Your task to perform on an android device: install app "Airtel Thanks" Image 0: 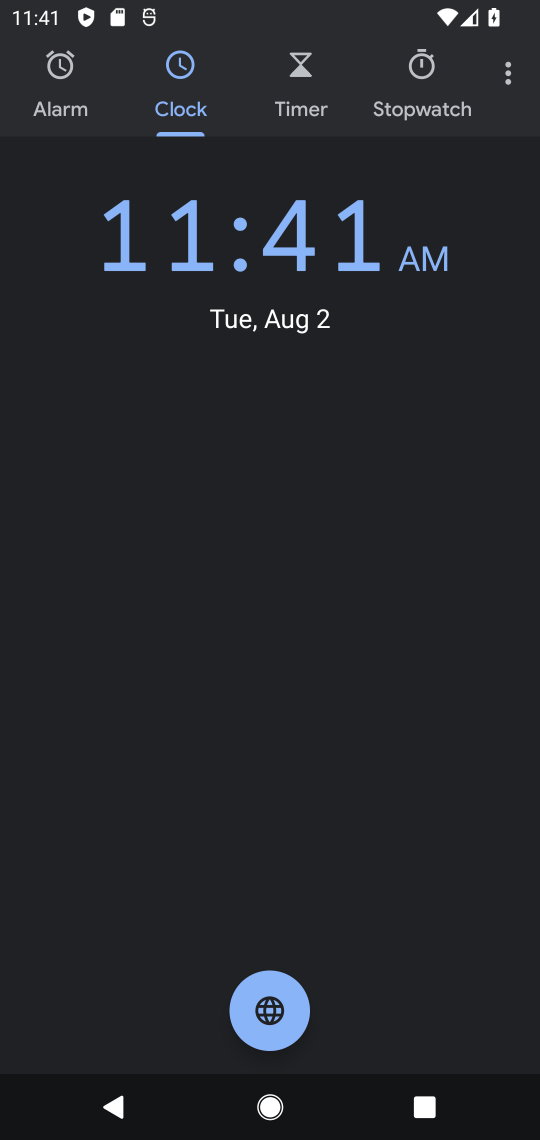
Step 0: press home button
Your task to perform on an android device: install app "Airtel Thanks" Image 1: 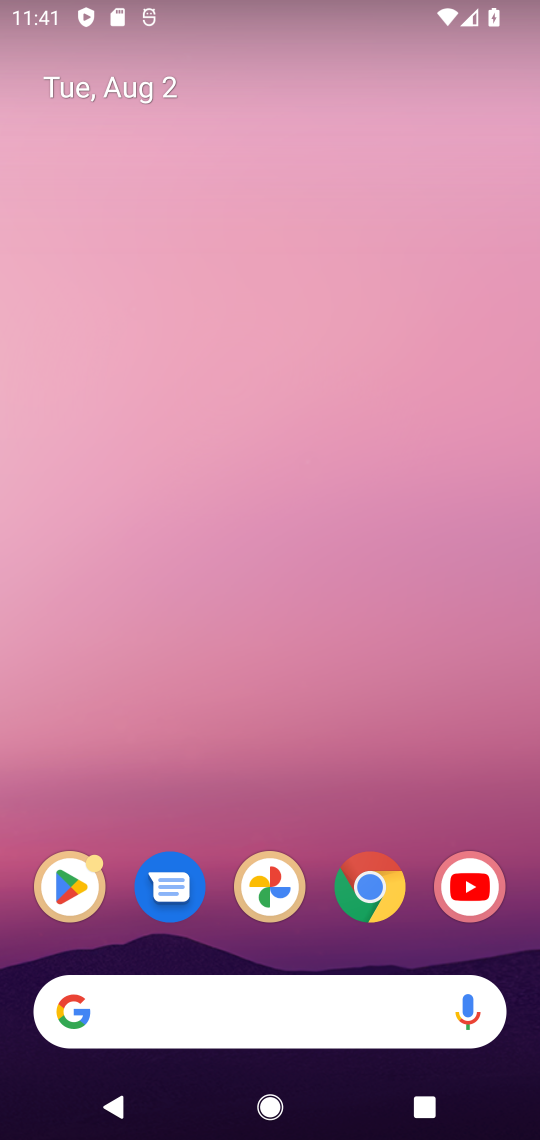
Step 1: click (85, 898)
Your task to perform on an android device: install app "Airtel Thanks" Image 2: 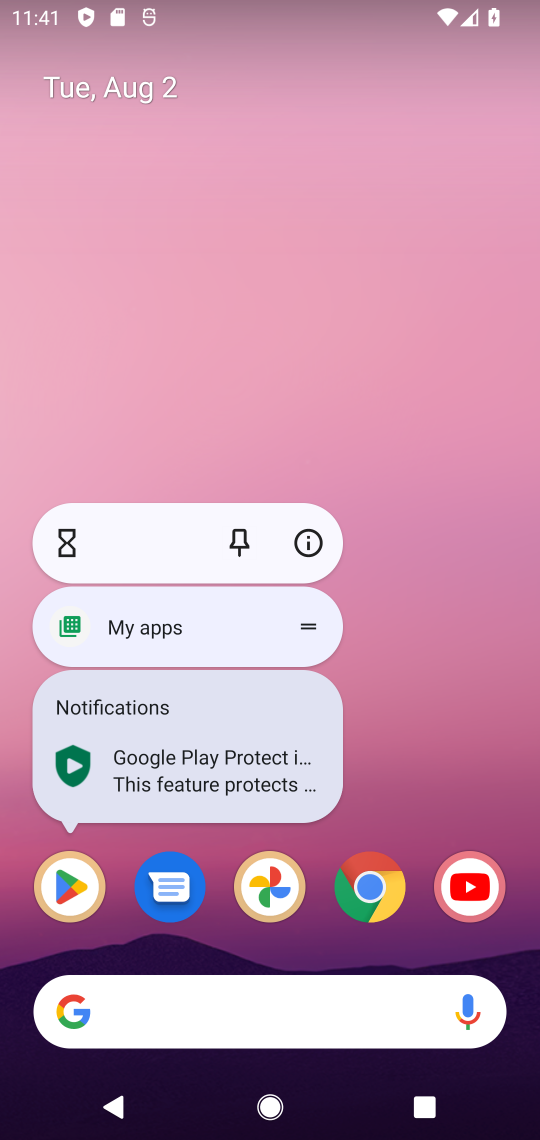
Step 2: click (85, 898)
Your task to perform on an android device: install app "Airtel Thanks" Image 3: 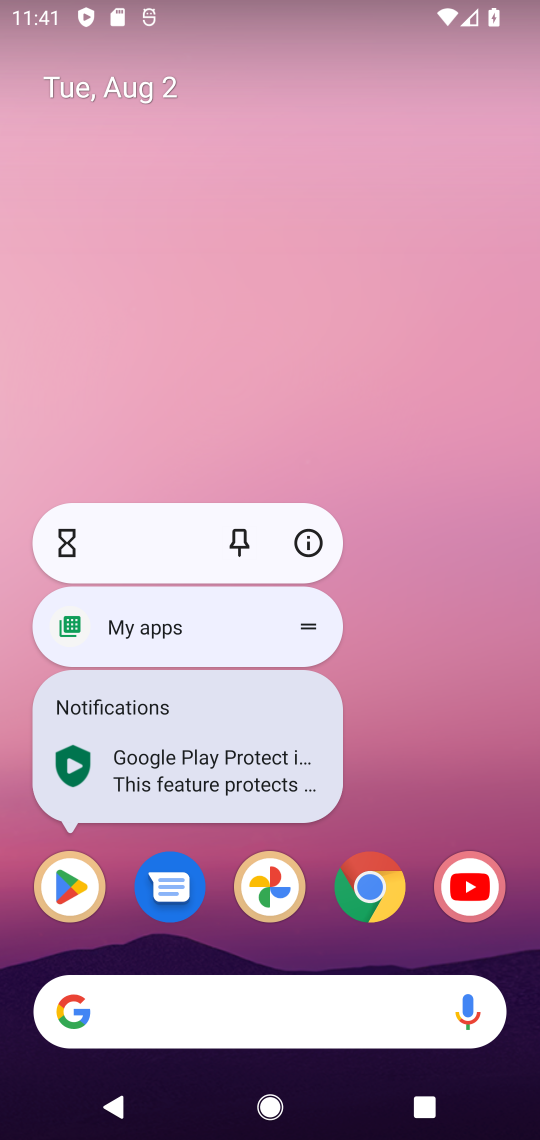
Step 3: click (85, 898)
Your task to perform on an android device: install app "Airtel Thanks" Image 4: 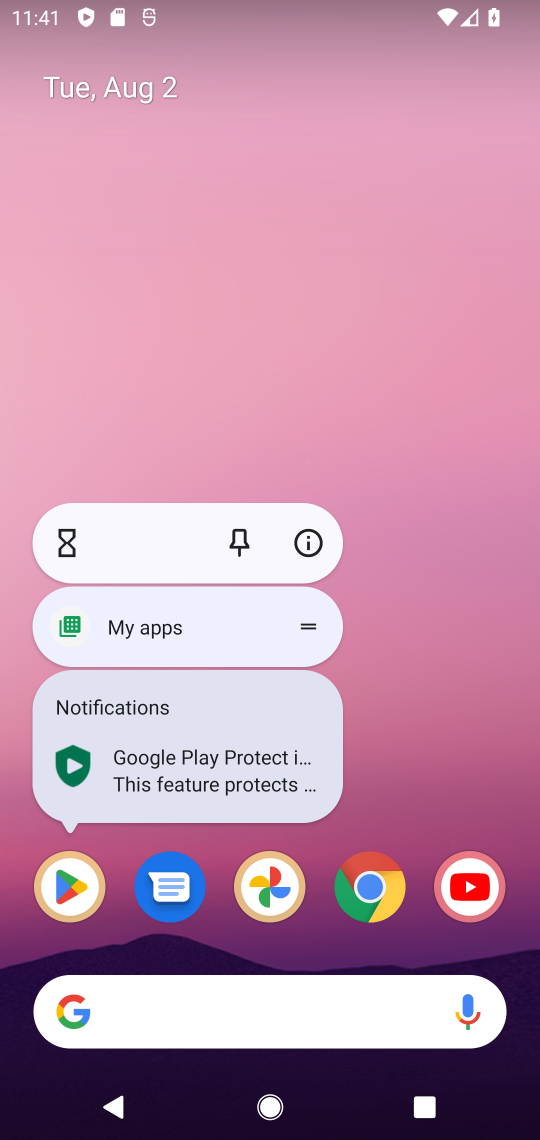
Step 4: click (85, 898)
Your task to perform on an android device: install app "Airtel Thanks" Image 5: 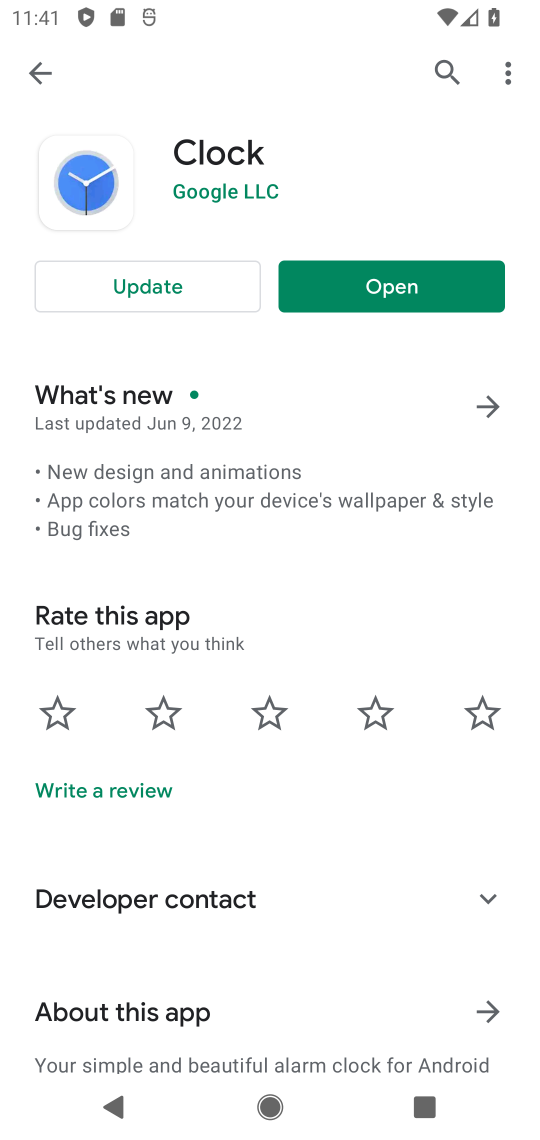
Step 5: click (85, 898)
Your task to perform on an android device: install app "Airtel Thanks" Image 6: 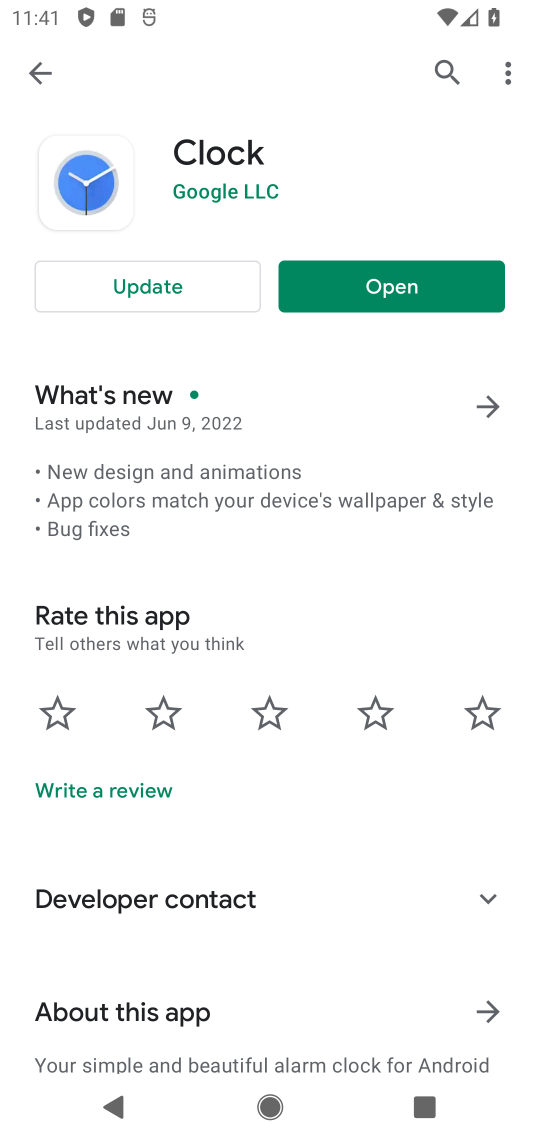
Step 6: click (85, 898)
Your task to perform on an android device: install app "Airtel Thanks" Image 7: 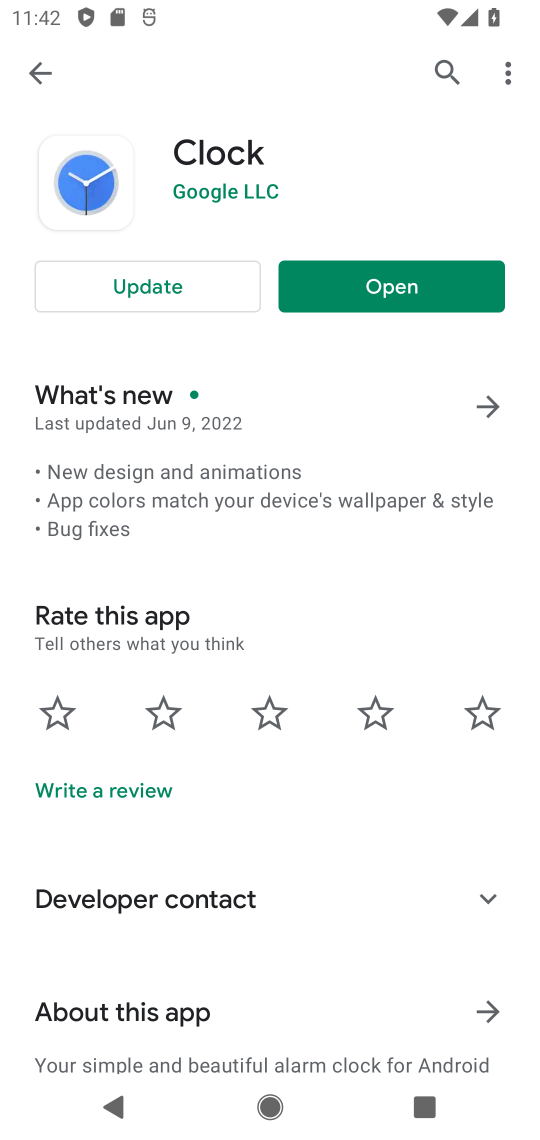
Step 7: press home button
Your task to perform on an android device: install app "Airtel Thanks" Image 8: 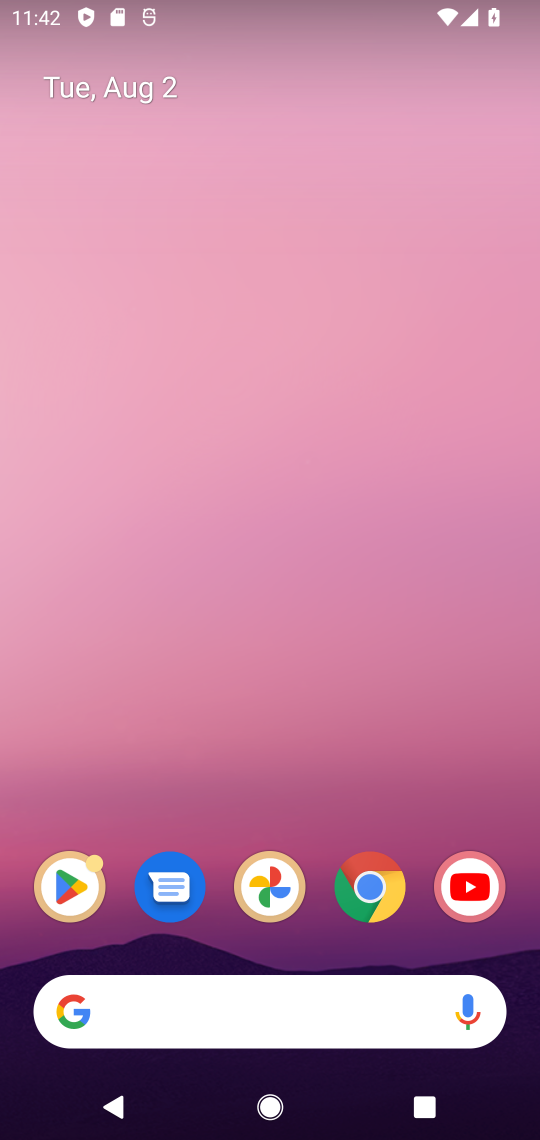
Step 8: click (38, 904)
Your task to perform on an android device: install app "Airtel Thanks" Image 9: 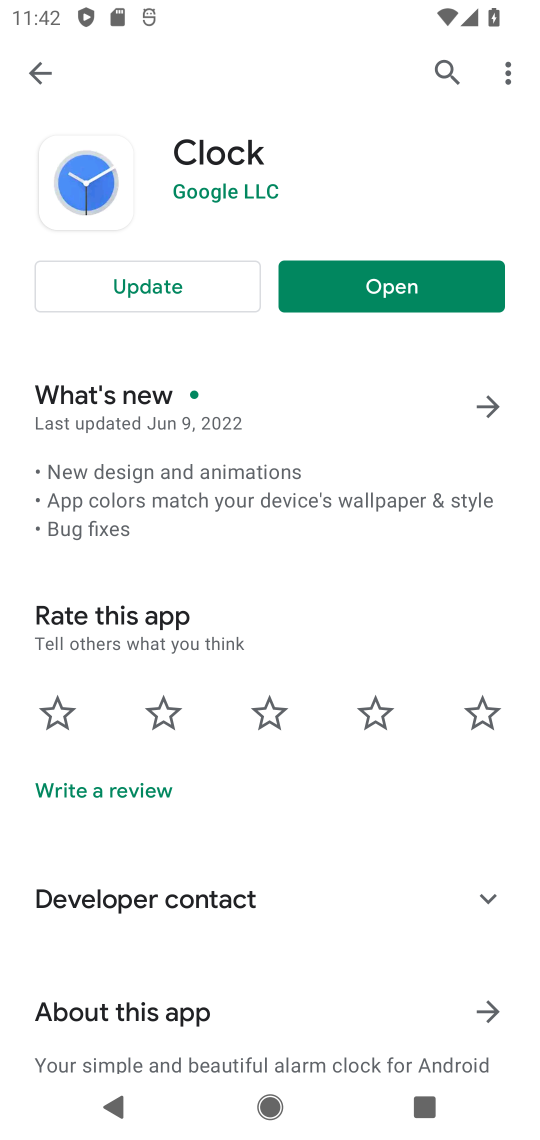
Step 9: click (450, 80)
Your task to perform on an android device: install app "Airtel Thanks" Image 10: 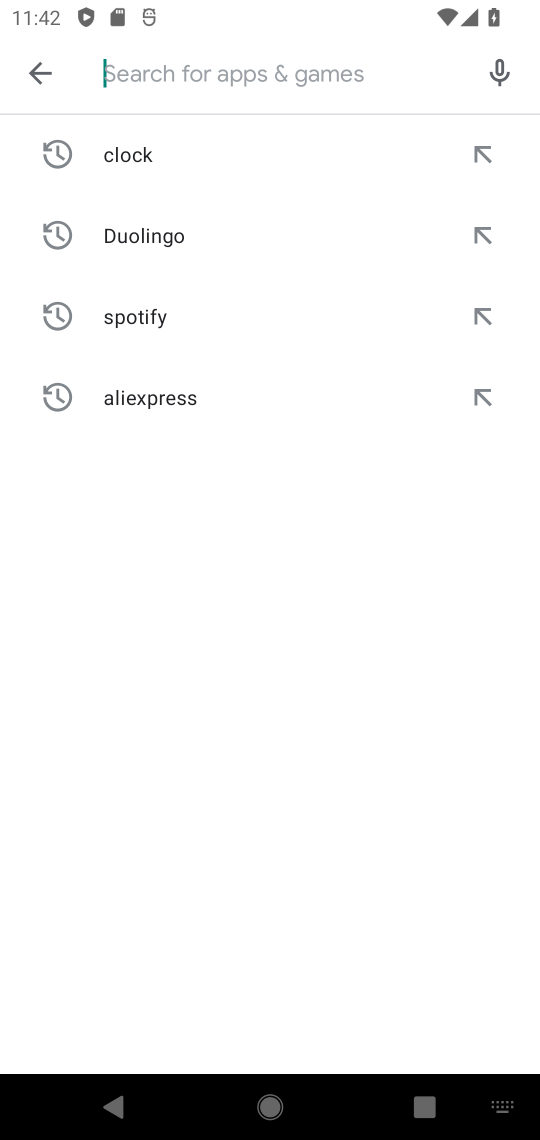
Step 10: type "airtel thanks"
Your task to perform on an android device: install app "Airtel Thanks" Image 11: 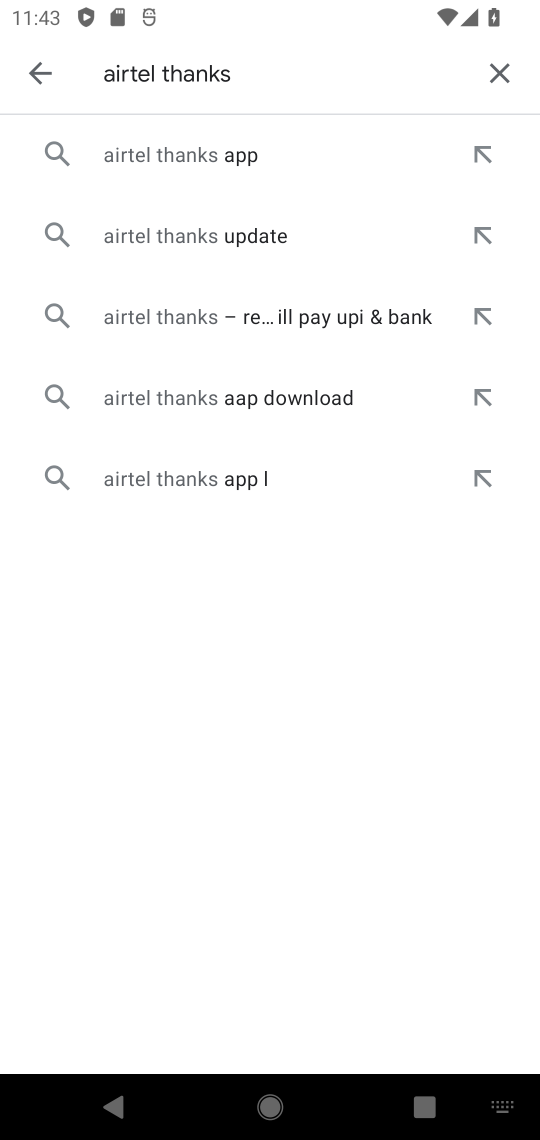
Step 11: click (313, 152)
Your task to perform on an android device: install app "Airtel Thanks" Image 12: 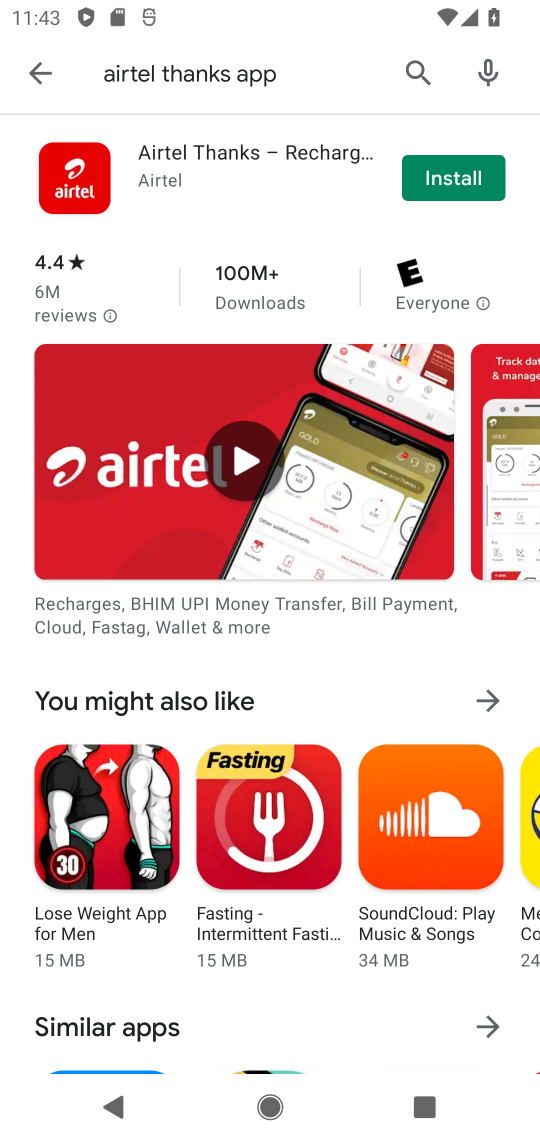
Step 12: click (443, 182)
Your task to perform on an android device: install app "Airtel Thanks" Image 13: 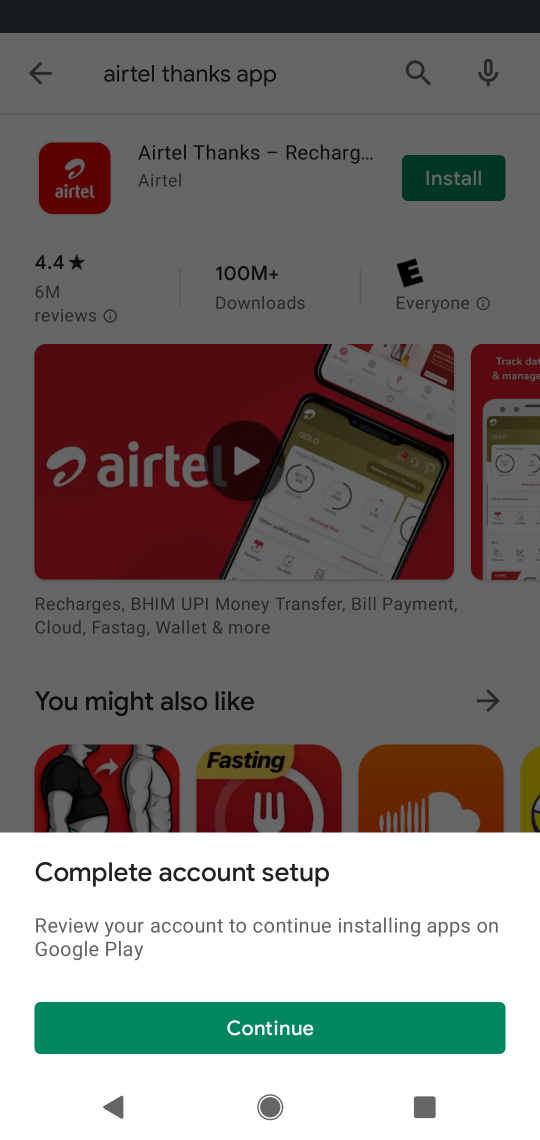
Step 13: click (326, 1048)
Your task to perform on an android device: install app "Airtel Thanks" Image 14: 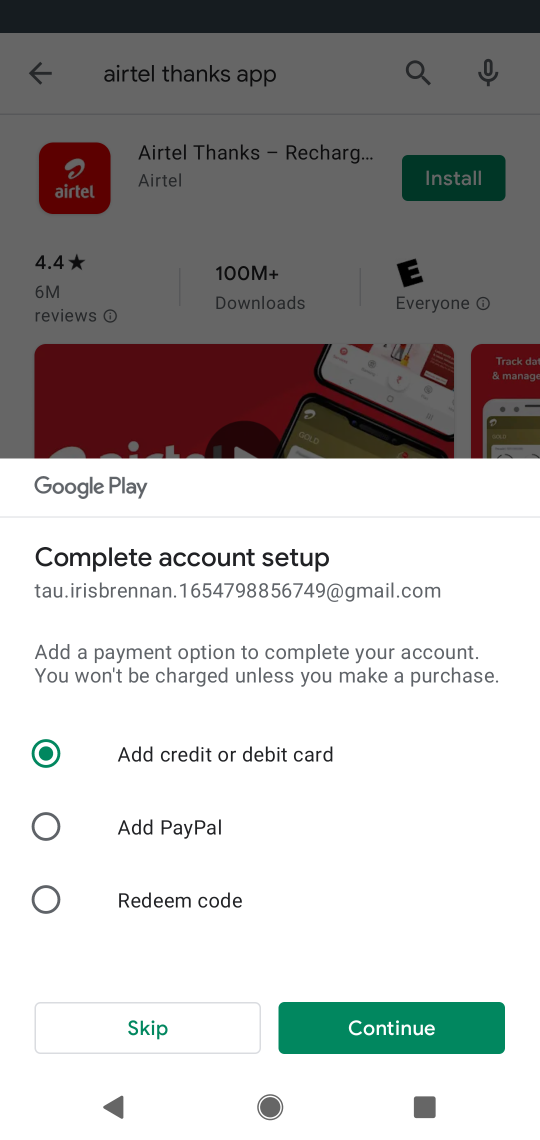
Step 14: click (175, 1026)
Your task to perform on an android device: install app "Airtel Thanks" Image 15: 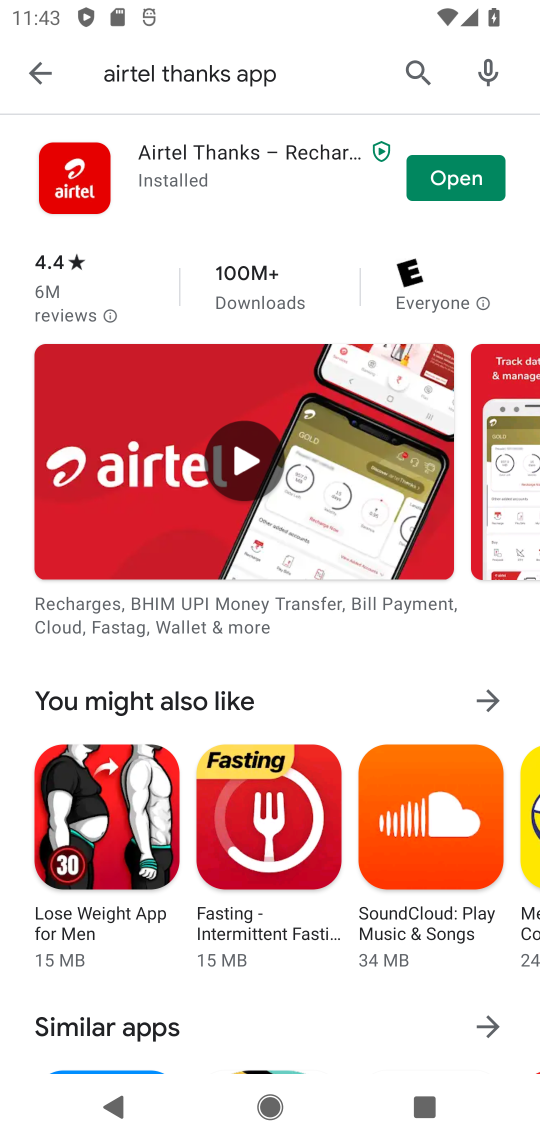
Step 15: task complete